Your task to perform on an android device: find which apps use the phone's location Image 0: 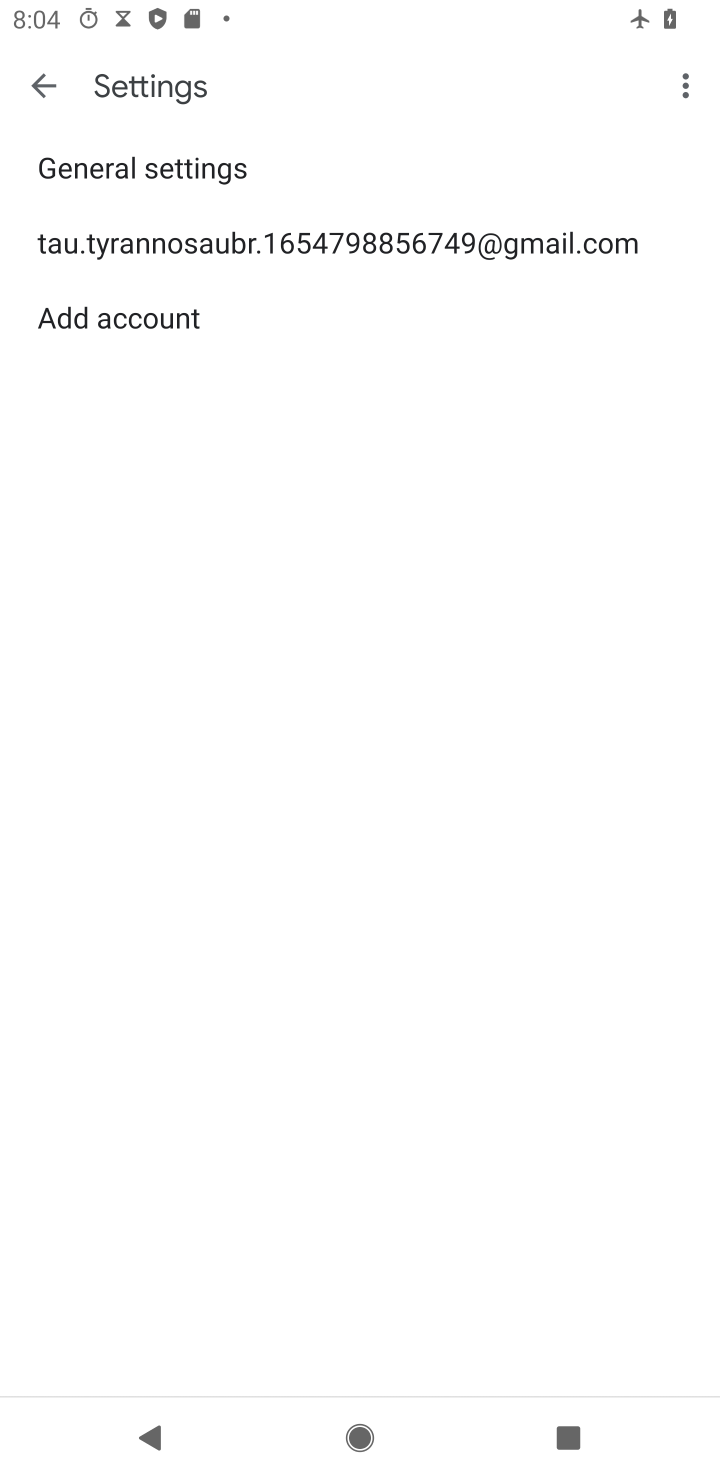
Step 0: press home button
Your task to perform on an android device: find which apps use the phone's location Image 1: 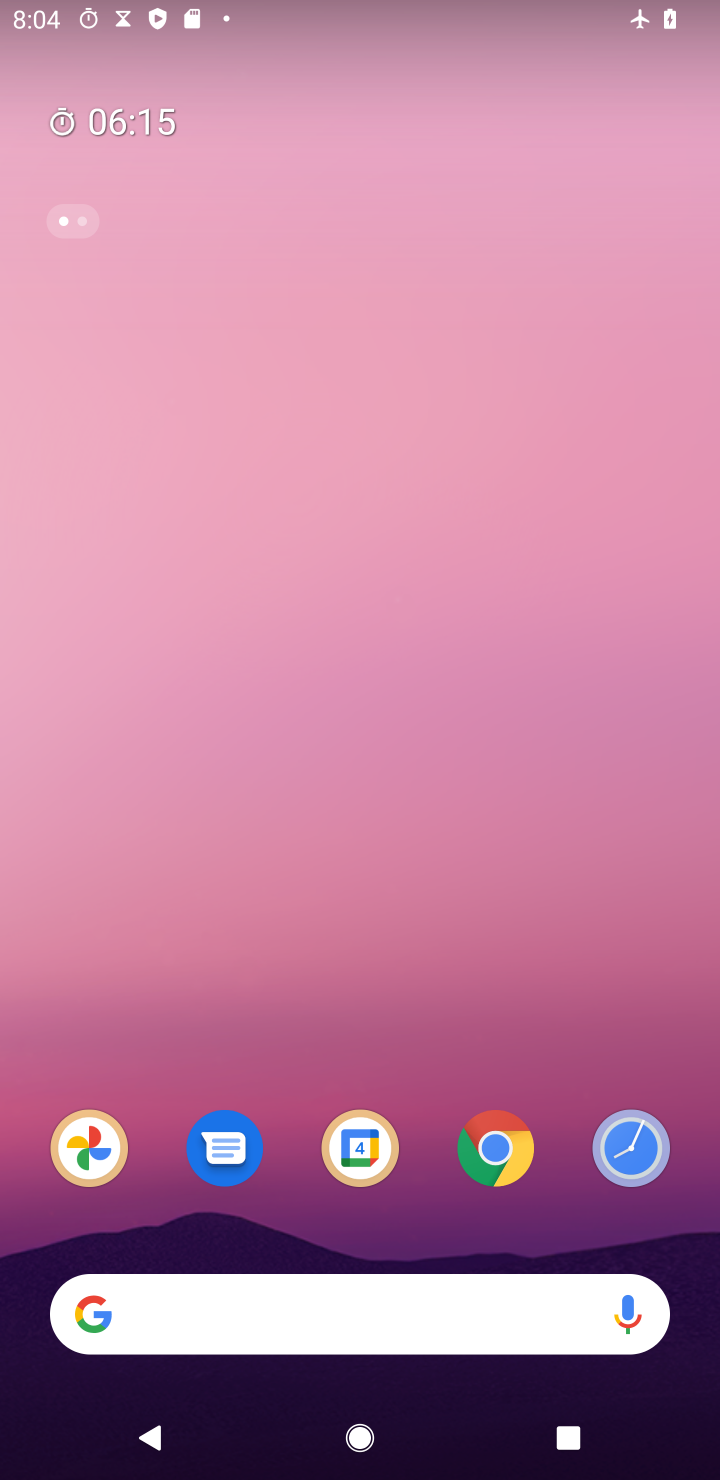
Step 1: drag from (594, 1049) to (574, 313)
Your task to perform on an android device: find which apps use the phone's location Image 2: 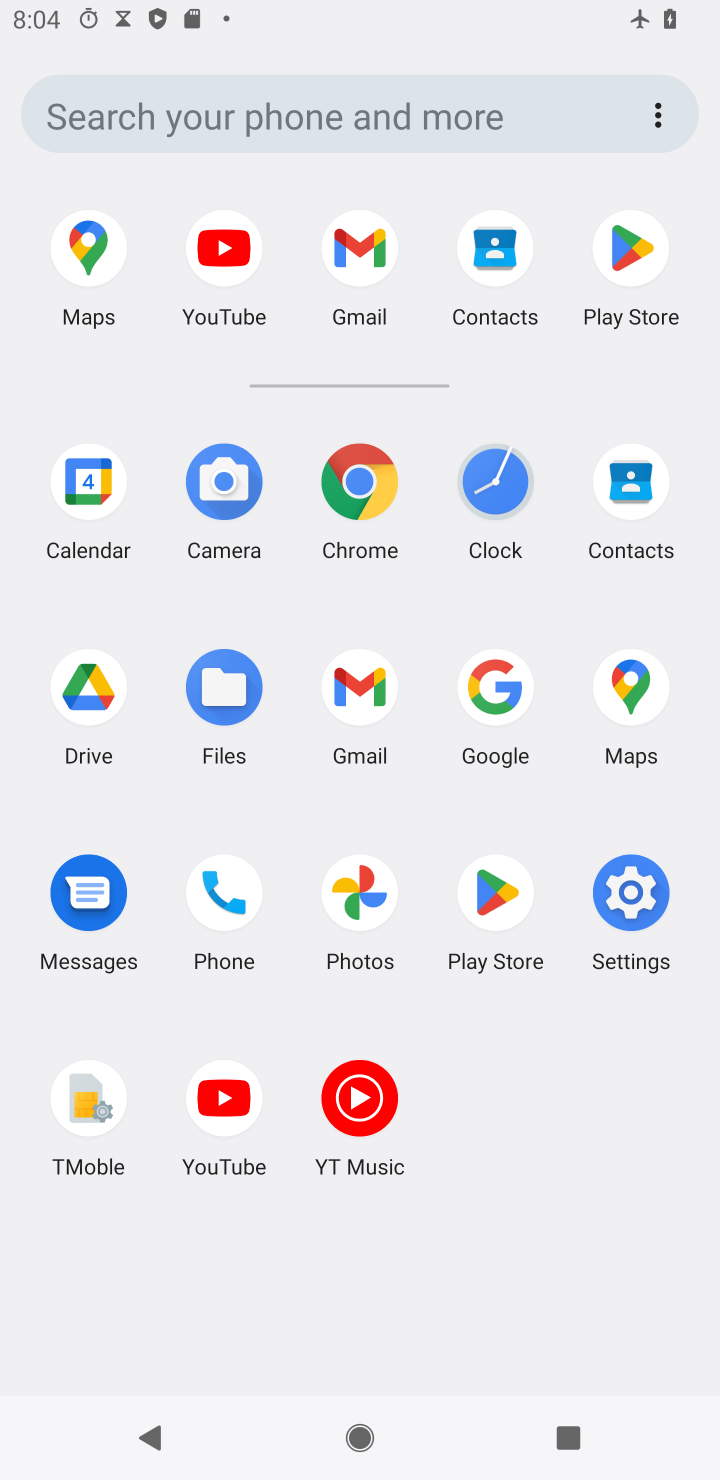
Step 2: click (635, 875)
Your task to perform on an android device: find which apps use the phone's location Image 3: 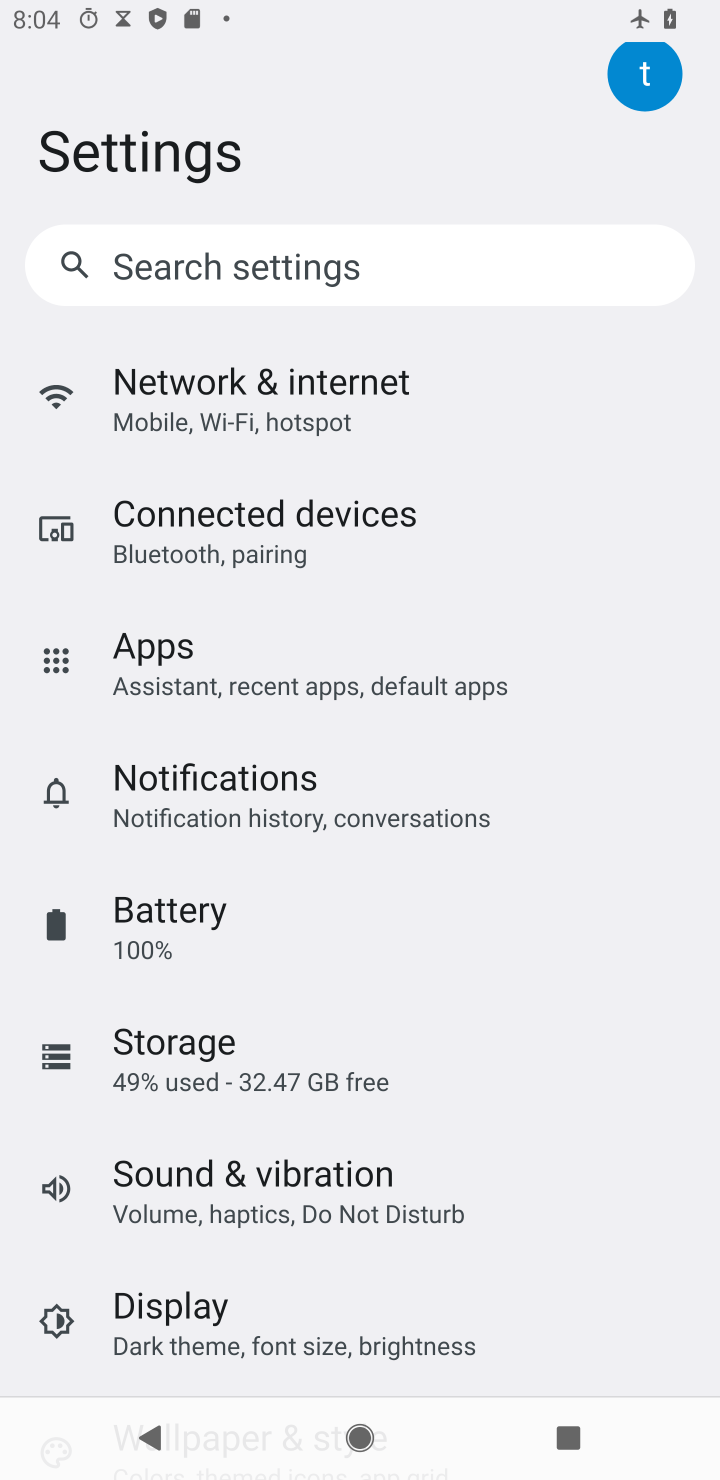
Step 3: drag from (546, 1303) to (487, 494)
Your task to perform on an android device: find which apps use the phone's location Image 4: 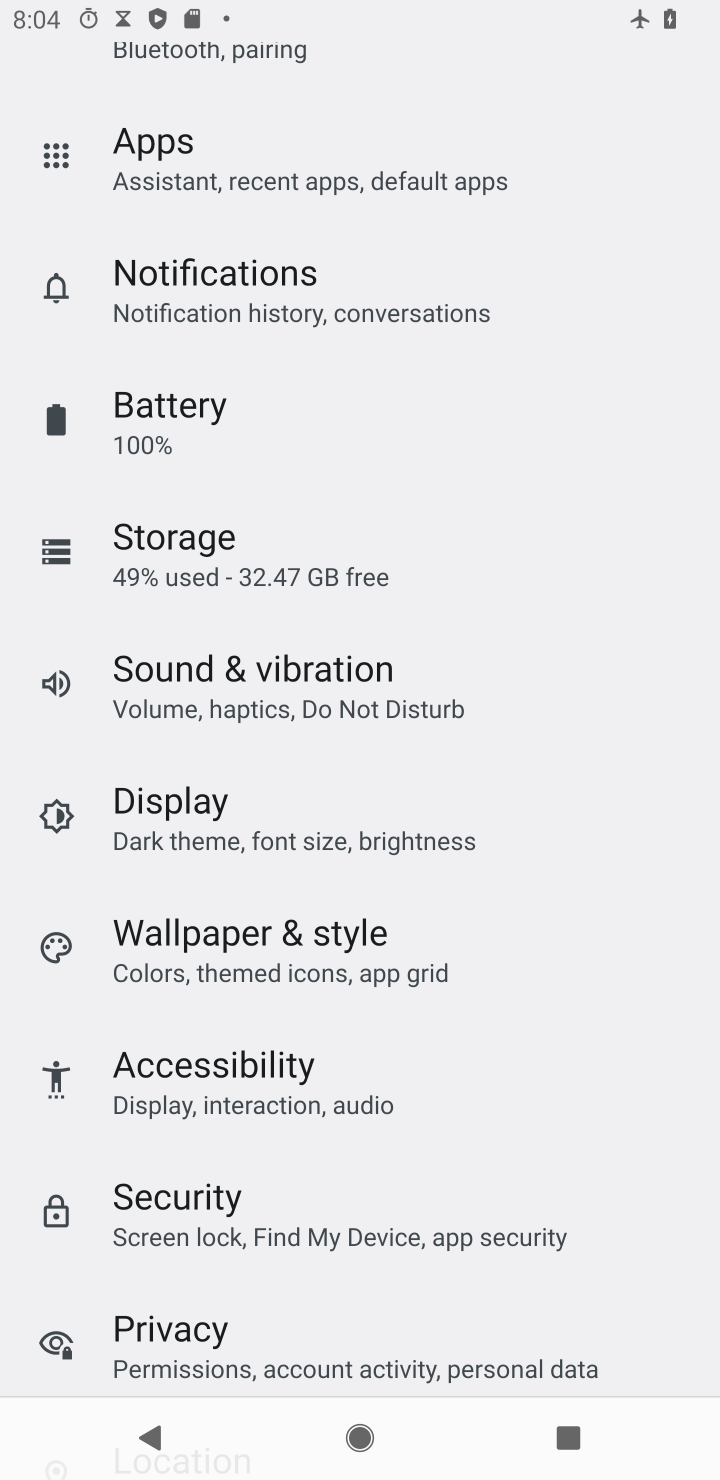
Step 4: drag from (516, 1173) to (400, 507)
Your task to perform on an android device: find which apps use the phone's location Image 5: 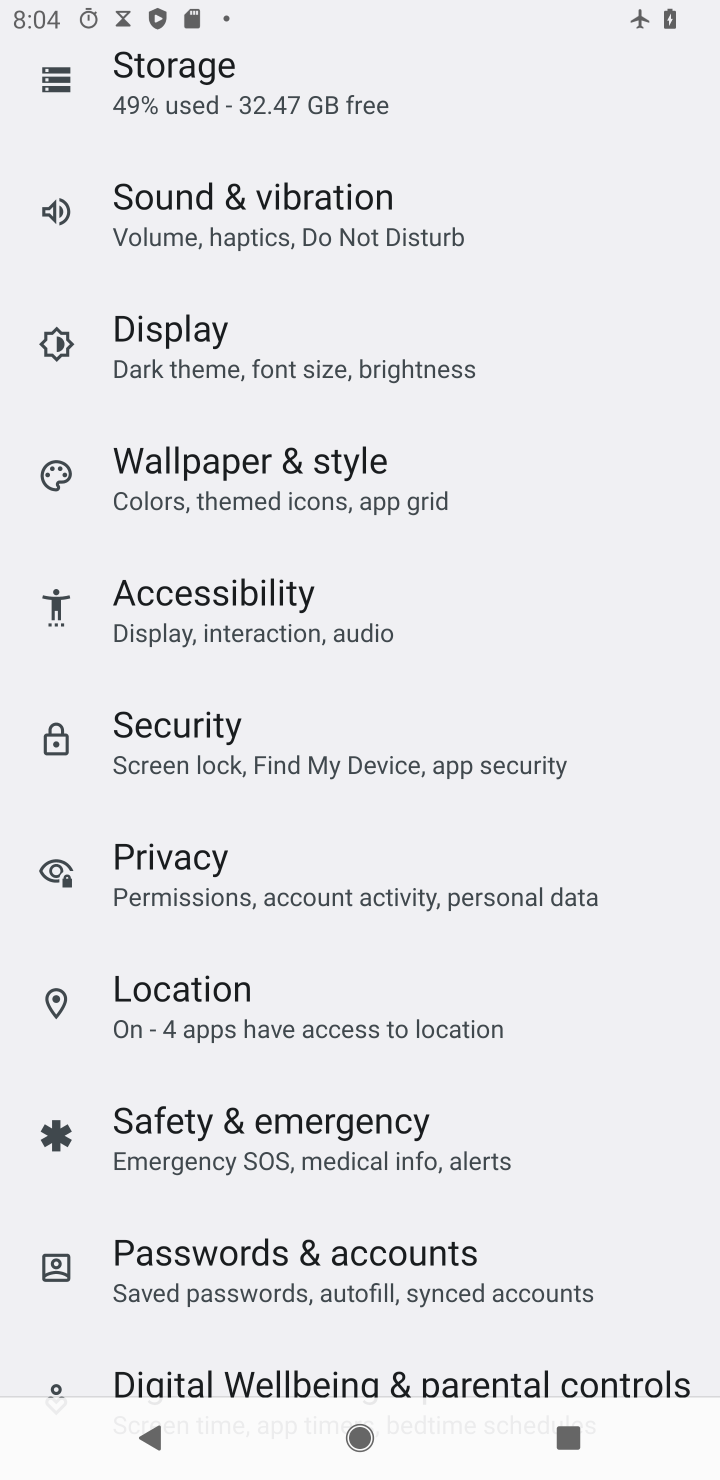
Step 5: click (523, 1023)
Your task to perform on an android device: find which apps use the phone's location Image 6: 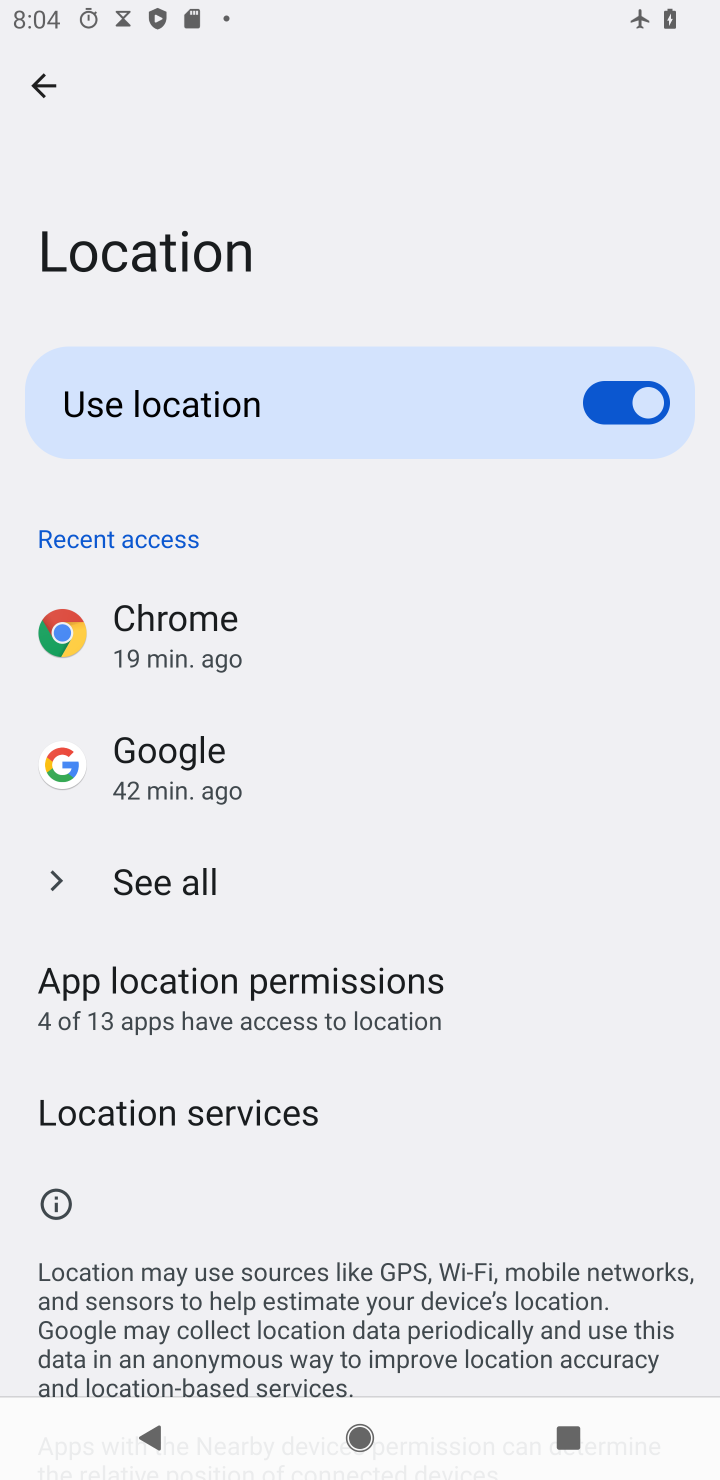
Step 6: click (350, 1008)
Your task to perform on an android device: find which apps use the phone's location Image 7: 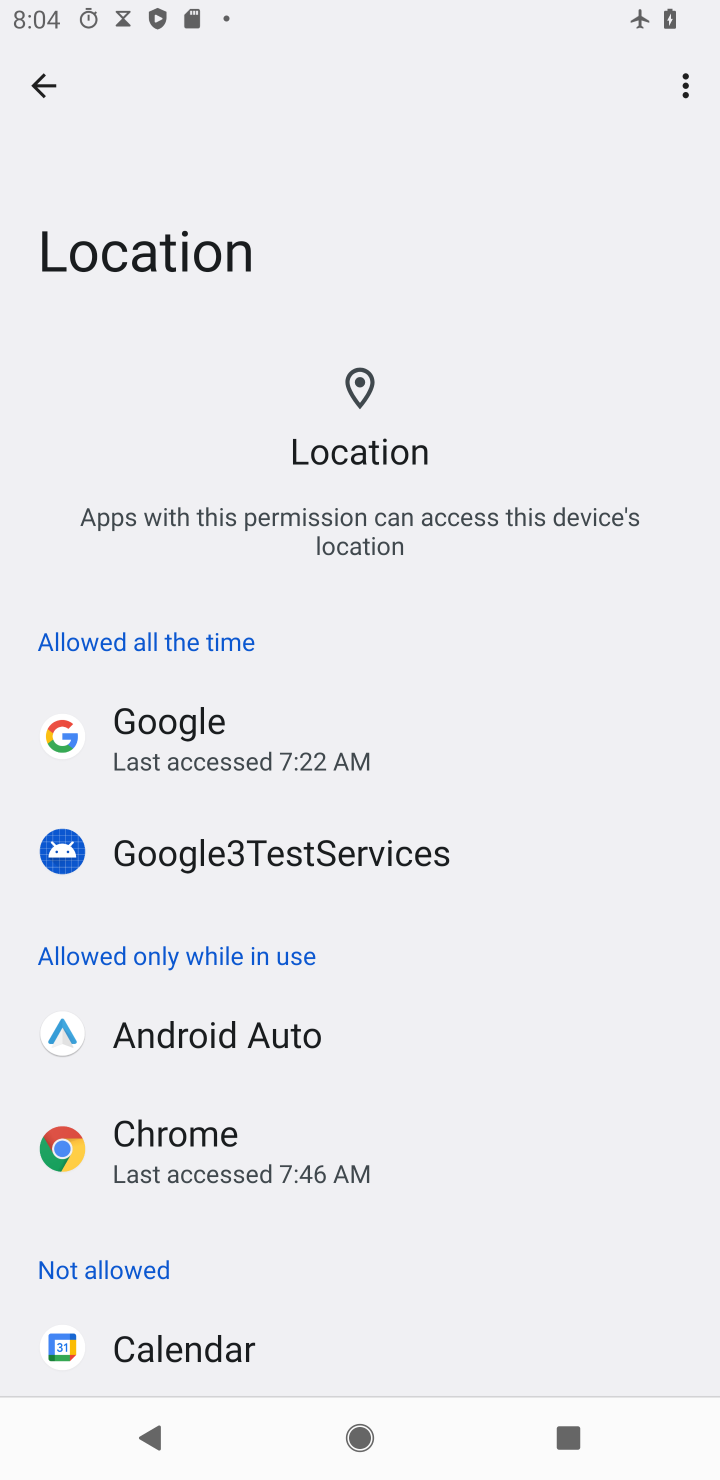
Step 7: task complete